Your task to perform on an android device: move an email to a new category in the gmail app Image 0: 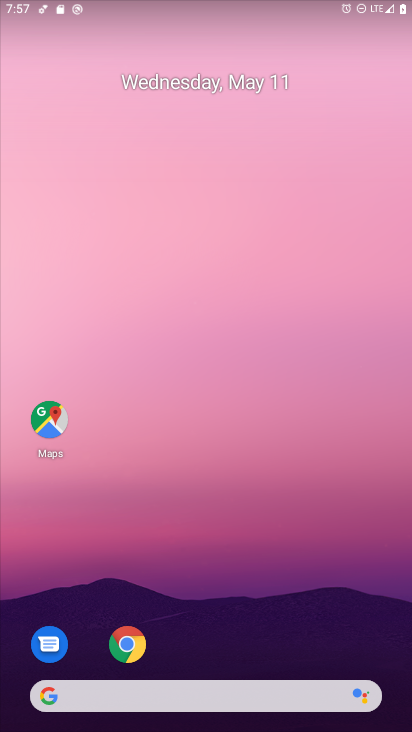
Step 0: drag from (248, 428) to (157, 61)
Your task to perform on an android device: move an email to a new category in the gmail app Image 1: 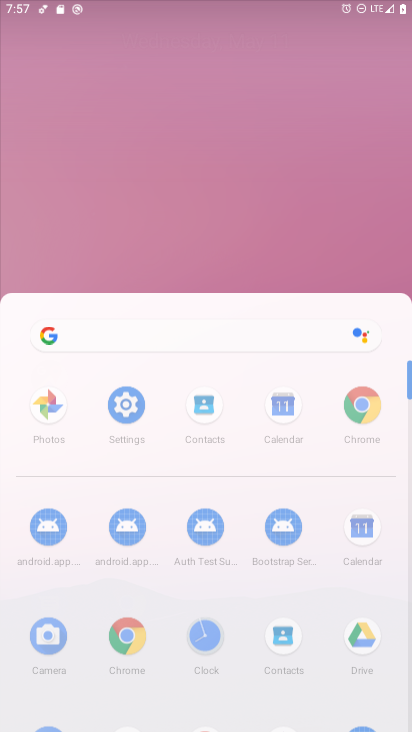
Step 1: click (157, 61)
Your task to perform on an android device: move an email to a new category in the gmail app Image 2: 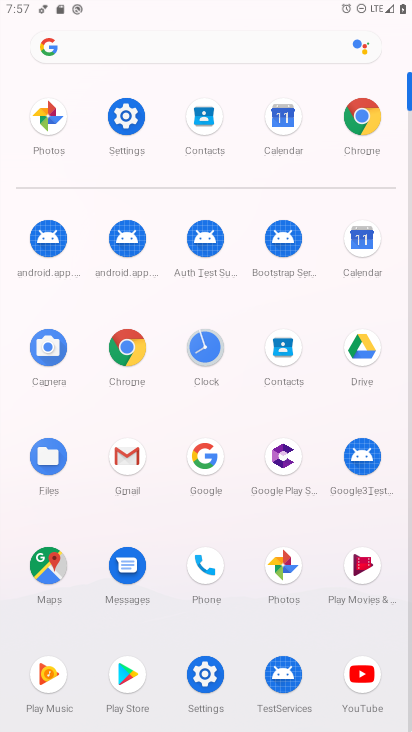
Step 2: click (130, 453)
Your task to perform on an android device: move an email to a new category in the gmail app Image 3: 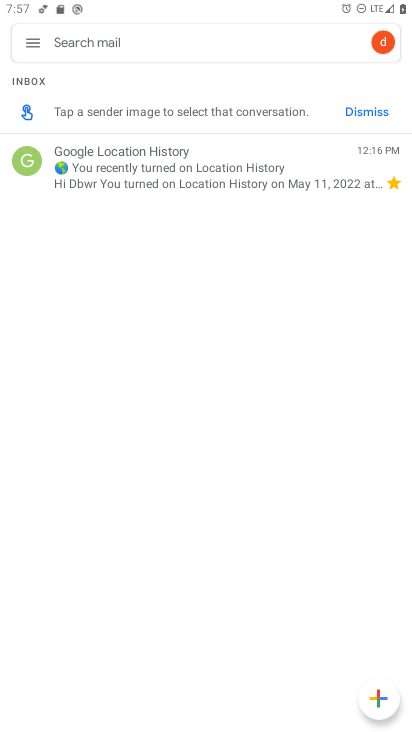
Step 3: click (30, 43)
Your task to perform on an android device: move an email to a new category in the gmail app Image 4: 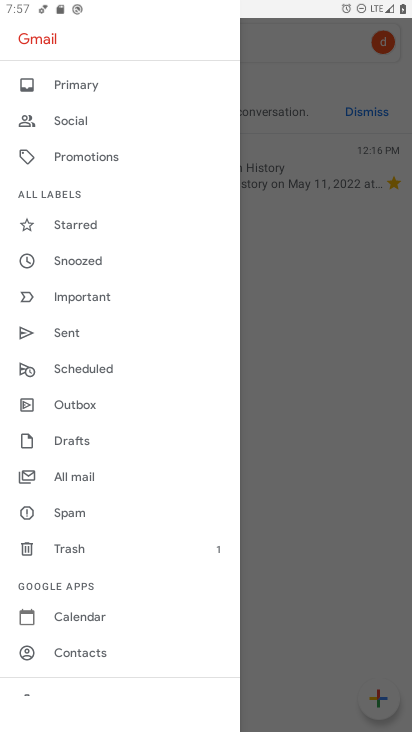
Step 4: click (71, 471)
Your task to perform on an android device: move an email to a new category in the gmail app Image 5: 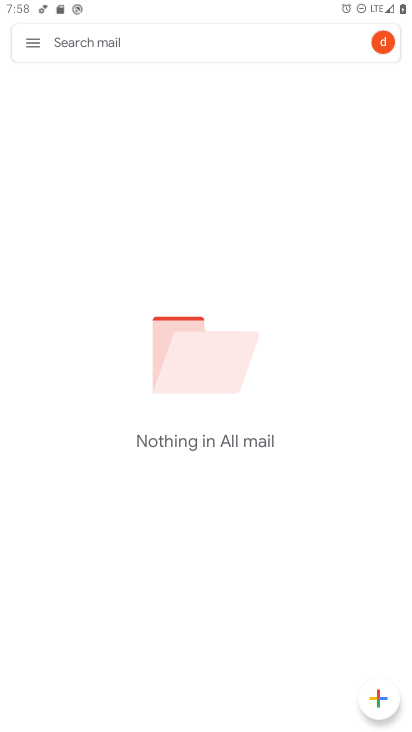
Step 5: task complete